Your task to perform on an android device: delete browsing data in the chrome app Image 0: 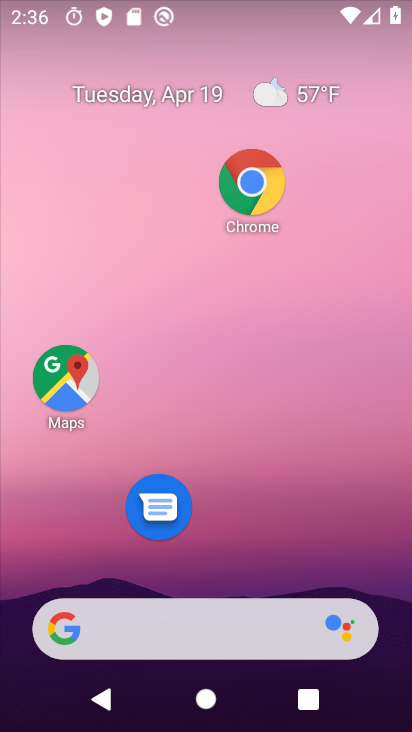
Step 0: drag from (289, 566) to (346, 148)
Your task to perform on an android device: delete browsing data in the chrome app Image 1: 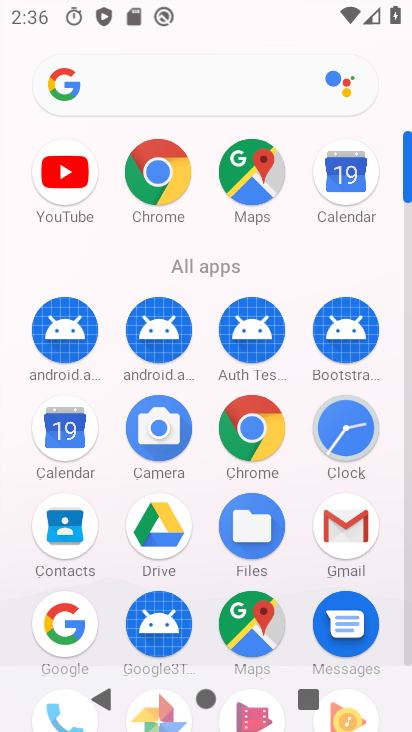
Step 1: click (187, 182)
Your task to perform on an android device: delete browsing data in the chrome app Image 2: 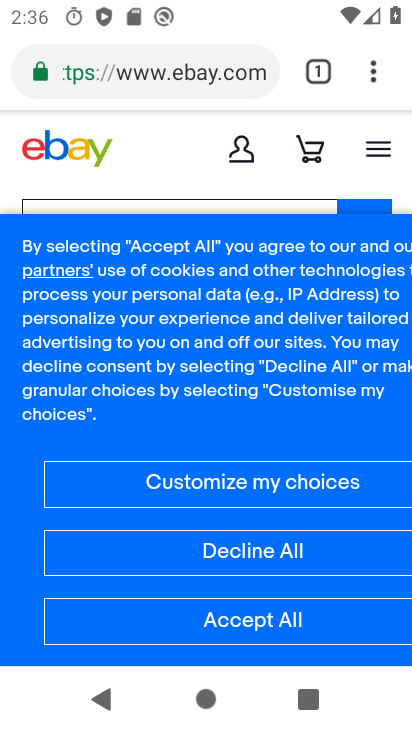
Step 2: click (375, 73)
Your task to perform on an android device: delete browsing data in the chrome app Image 3: 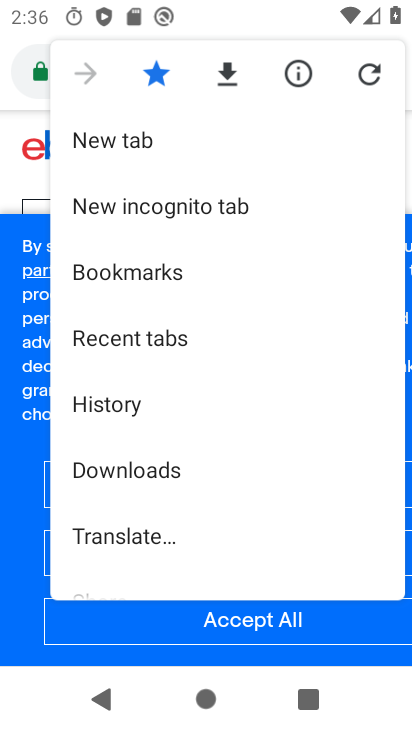
Step 3: click (138, 420)
Your task to perform on an android device: delete browsing data in the chrome app Image 4: 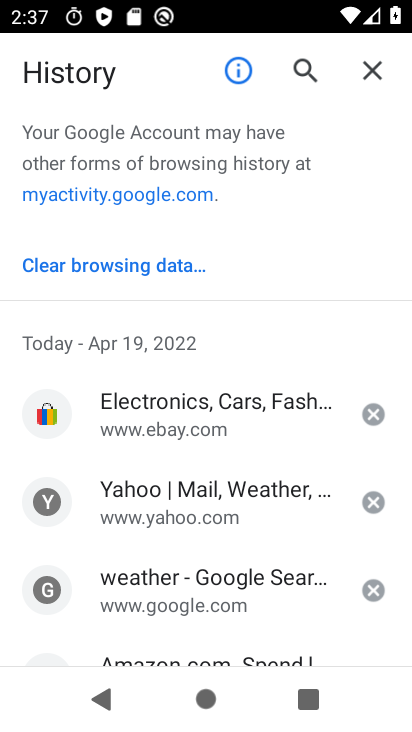
Step 4: click (133, 269)
Your task to perform on an android device: delete browsing data in the chrome app Image 5: 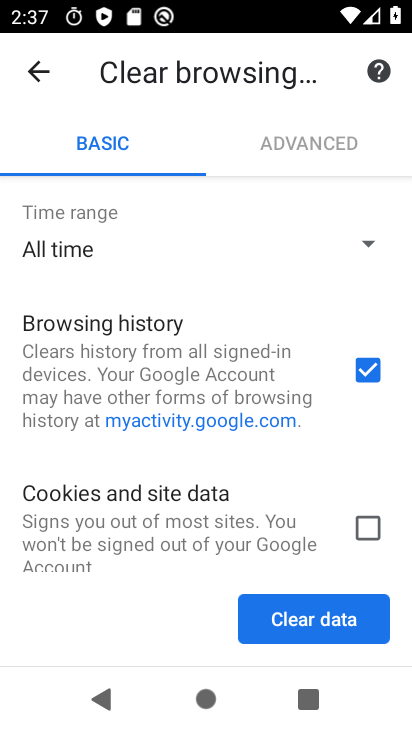
Step 5: click (329, 630)
Your task to perform on an android device: delete browsing data in the chrome app Image 6: 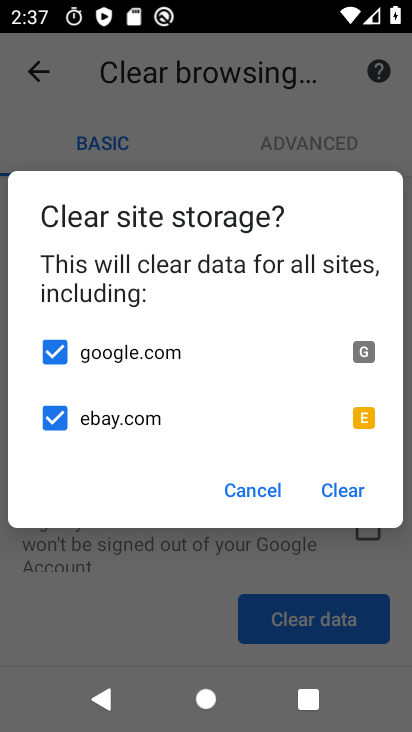
Step 6: click (344, 500)
Your task to perform on an android device: delete browsing data in the chrome app Image 7: 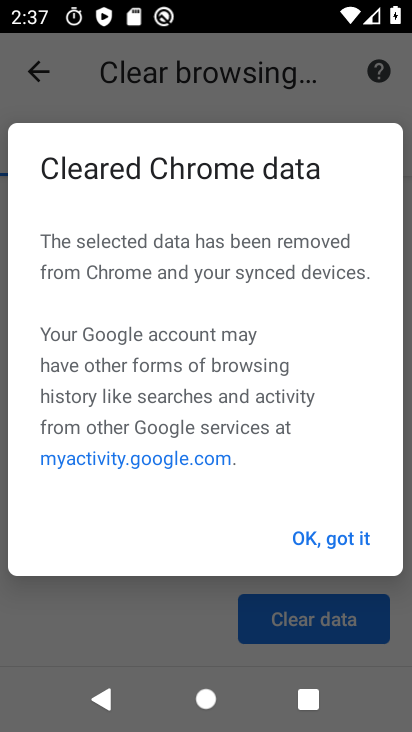
Step 7: click (338, 536)
Your task to perform on an android device: delete browsing data in the chrome app Image 8: 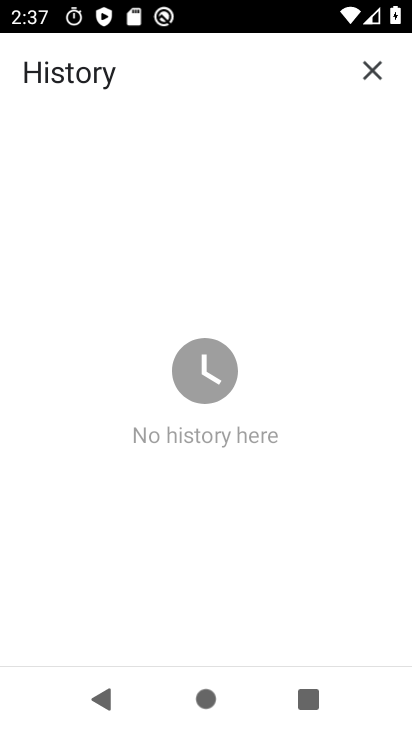
Step 8: task complete